Your task to perform on an android device: find which apps use the phone's location Image 0: 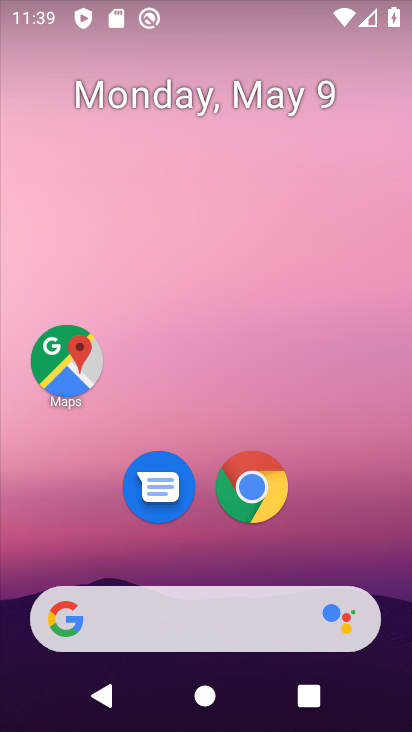
Step 0: drag from (345, 527) to (300, 268)
Your task to perform on an android device: find which apps use the phone's location Image 1: 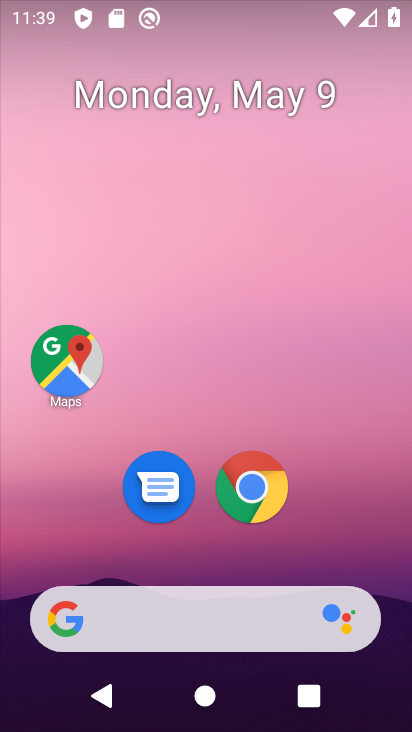
Step 1: drag from (331, 516) to (331, 221)
Your task to perform on an android device: find which apps use the phone's location Image 2: 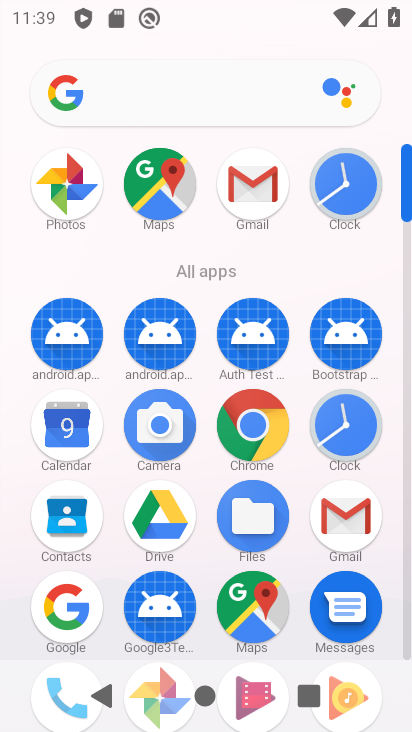
Step 2: click (409, 660)
Your task to perform on an android device: find which apps use the phone's location Image 3: 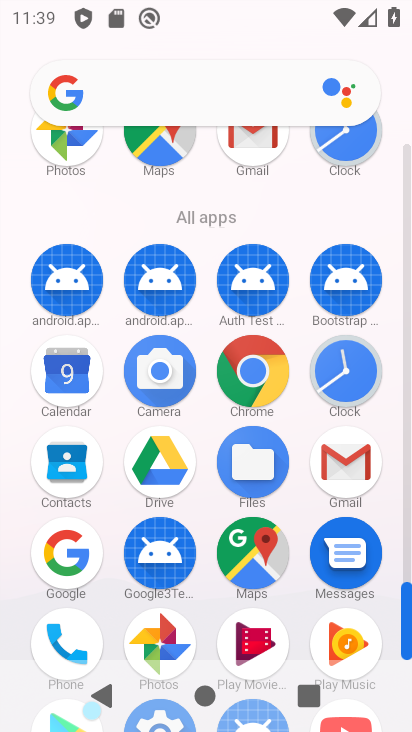
Step 3: click (409, 660)
Your task to perform on an android device: find which apps use the phone's location Image 4: 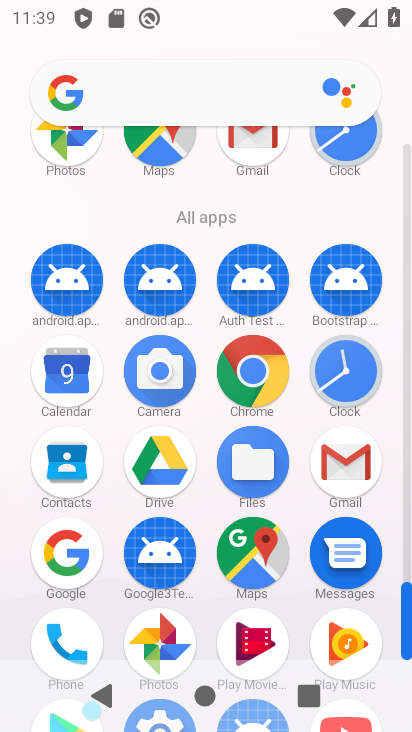
Step 4: drag from (409, 660) to (411, 539)
Your task to perform on an android device: find which apps use the phone's location Image 5: 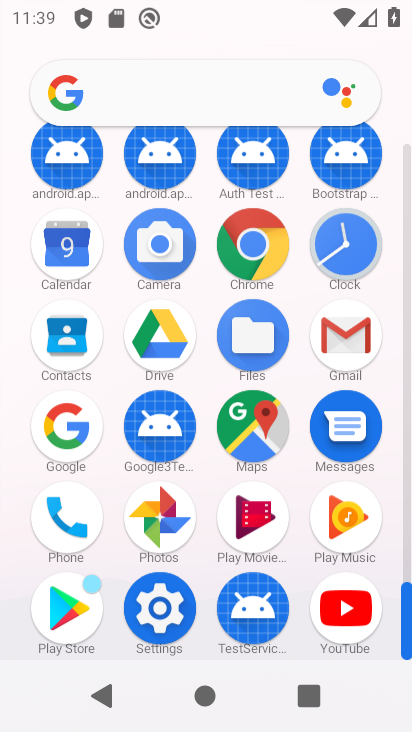
Step 5: drag from (408, 535) to (403, 576)
Your task to perform on an android device: find which apps use the phone's location Image 6: 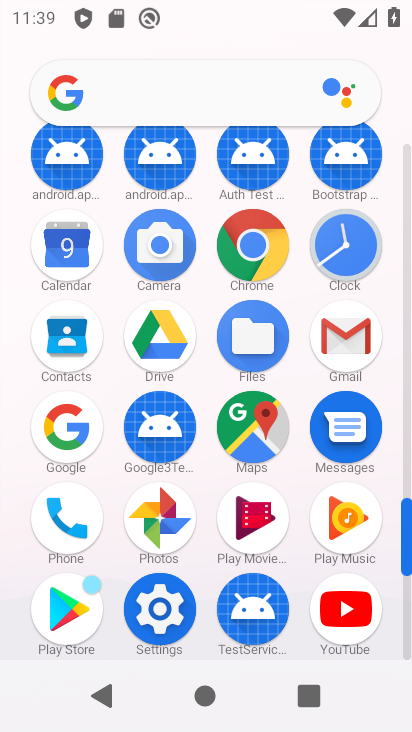
Step 6: click (172, 604)
Your task to perform on an android device: find which apps use the phone's location Image 7: 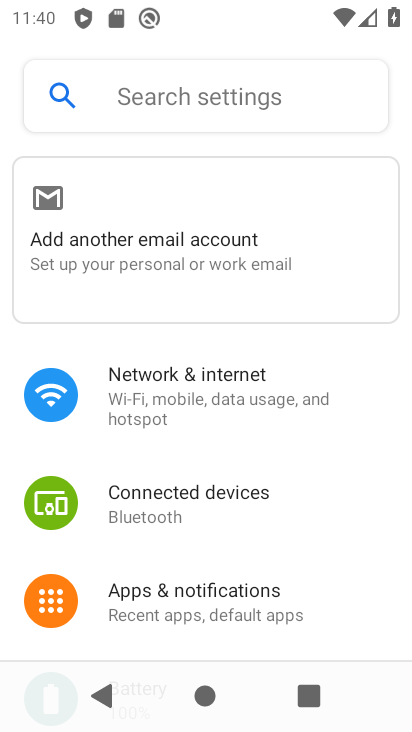
Step 7: drag from (269, 589) to (269, 333)
Your task to perform on an android device: find which apps use the phone's location Image 8: 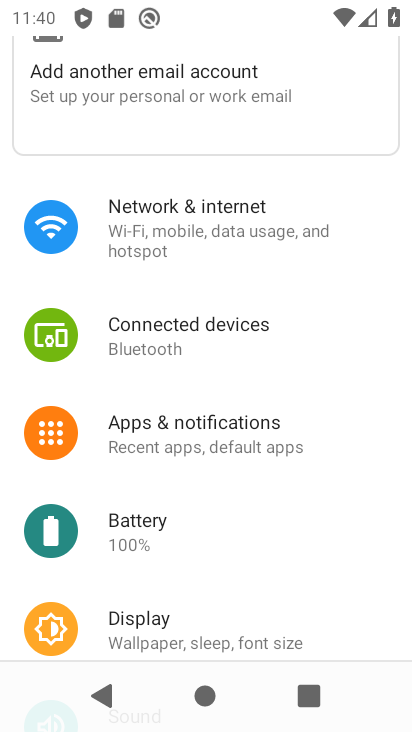
Step 8: drag from (251, 594) to (254, 254)
Your task to perform on an android device: find which apps use the phone's location Image 9: 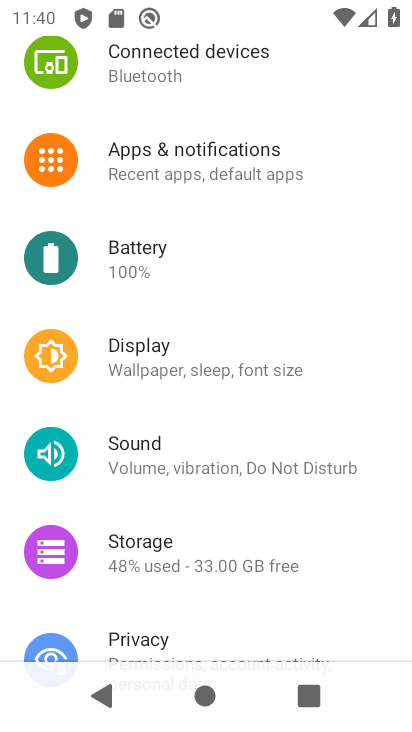
Step 9: drag from (234, 571) to (234, 356)
Your task to perform on an android device: find which apps use the phone's location Image 10: 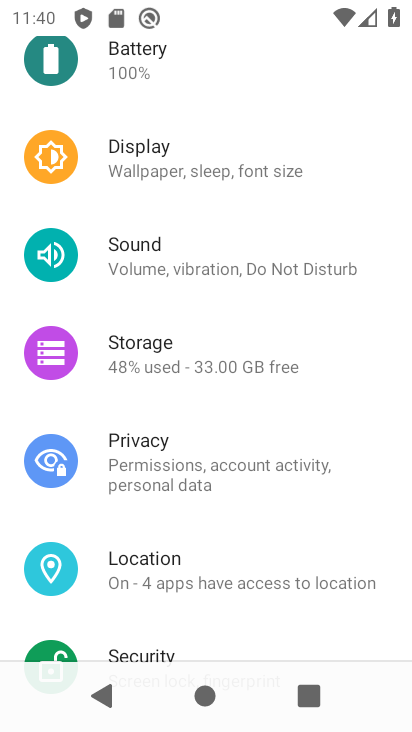
Step 10: click (227, 562)
Your task to perform on an android device: find which apps use the phone's location Image 11: 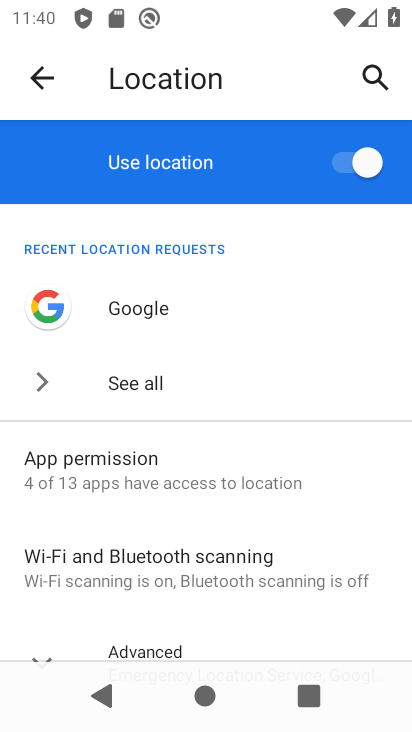
Step 11: task complete